Your task to perform on an android device: Open settings on Google Maps Image 0: 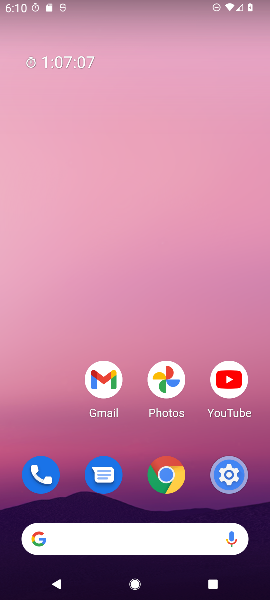
Step 0: press home button
Your task to perform on an android device: Open settings on Google Maps Image 1: 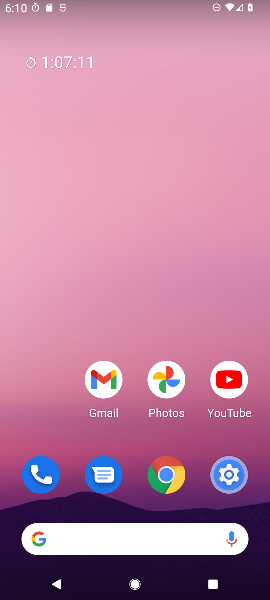
Step 1: drag from (51, 435) to (44, 195)
Your task to perform on an android device: Open settings on Google Maps Image 2: 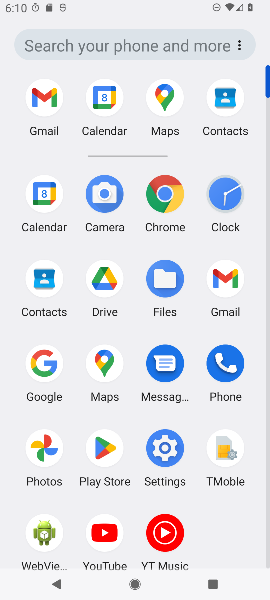
Step 2: click (104, 364)
Your task to perform on an android device: Open settings on Google Maps Image 3: 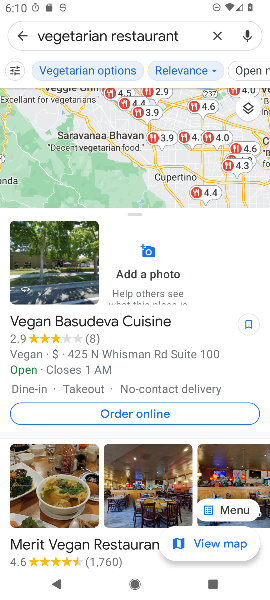
Step 3: press back button
Your task to perform on an android device: Open settings on Google Maps Image 4: 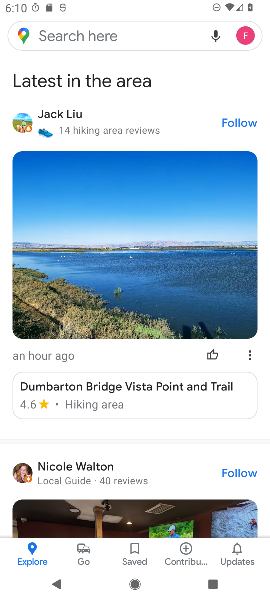
Step 4: click (247, 37)
Your task to perform on an android device: Open settings on Google Maps Image 5: 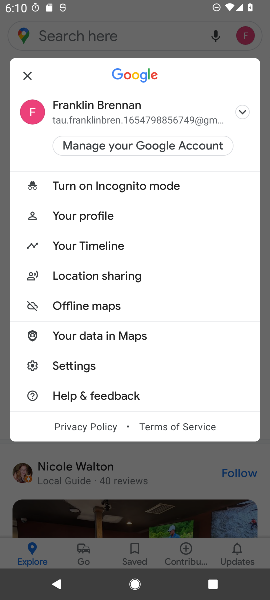
Step 5: click (97, 365)
Your task to perform on an android device: Open settings on Google Maps Image 6: 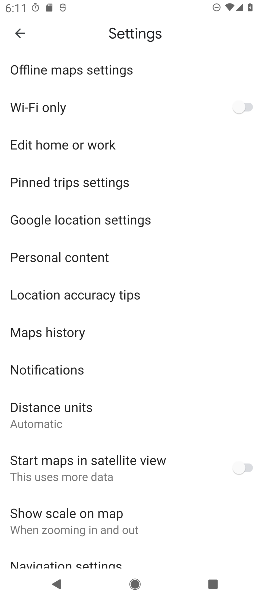
Step 6: task complete